Your task to perform on an android device: Go to calendar. Show me events next week Image 0: 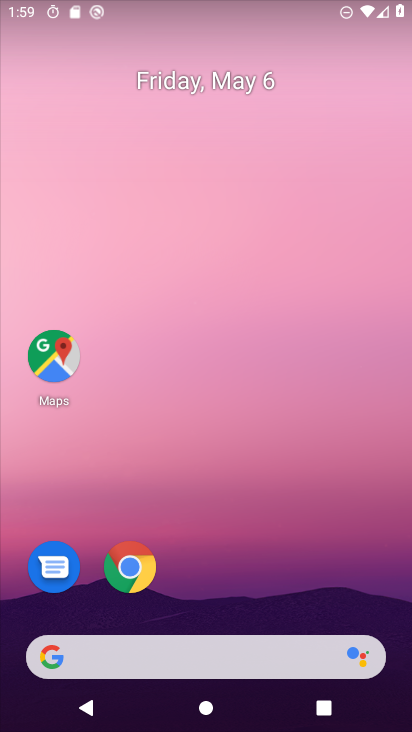
Step 0: drag from (279, 686) to (230, 298)
Your task to perform on an android device: Go to calendar. Show me events next week Image 1: 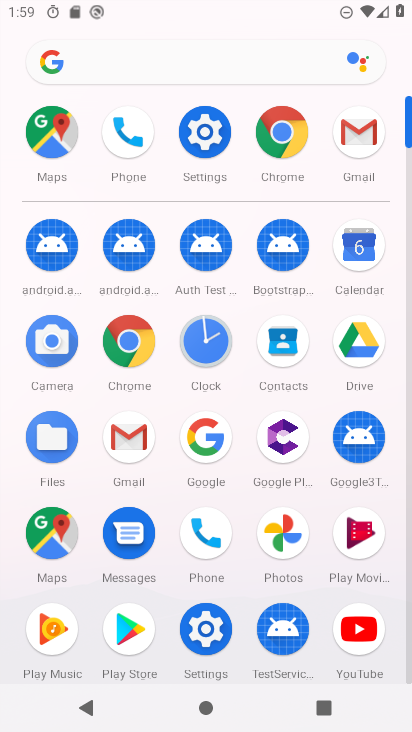
Step 1: click (375, 258)
Your task to perform on an android device: Go to calendar. Show me events next week Image 2: 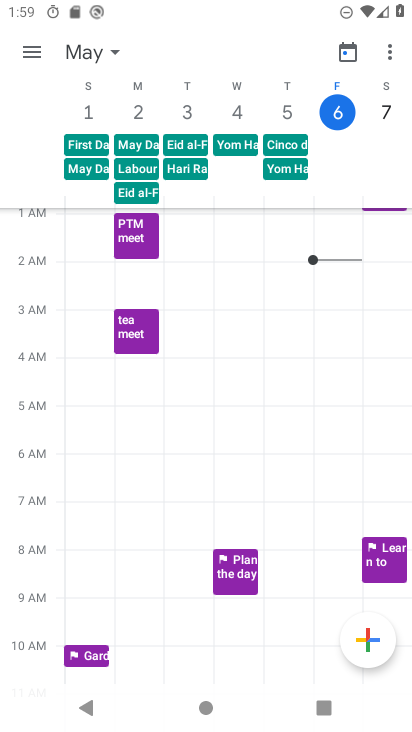
Step 2: click (44, 55)
Your task to perform on an android device: Go to calendar. Show me events next week Image 3: 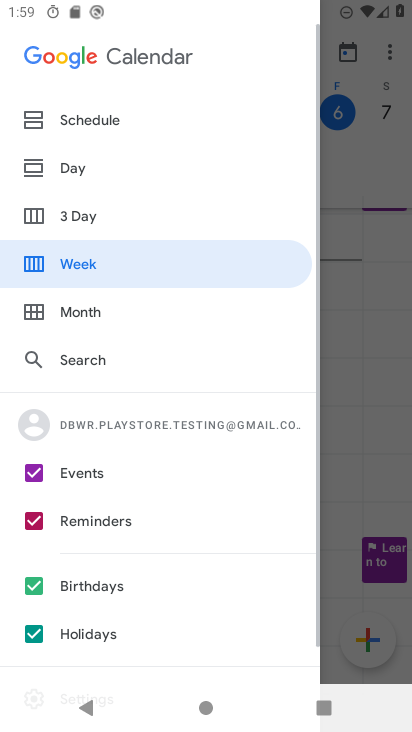
Step 3: click (138, 311)
Your task to perform on an android device: Go to calendar. Show me events next week Image 4: 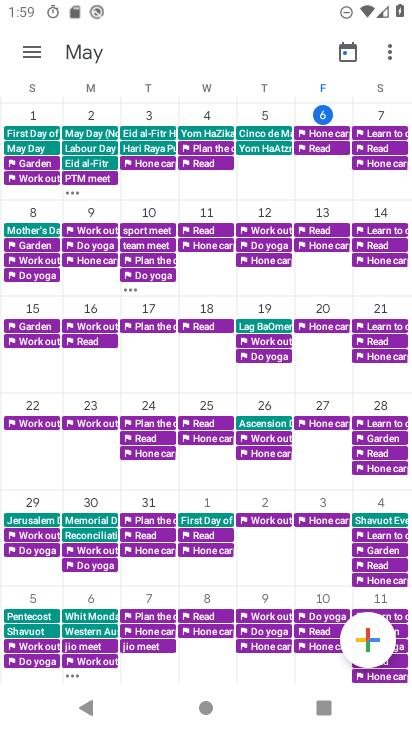
Step 4: click (82, 226)
Your task to perform on an android device: Go to calendar. Show me events next week Image 5: 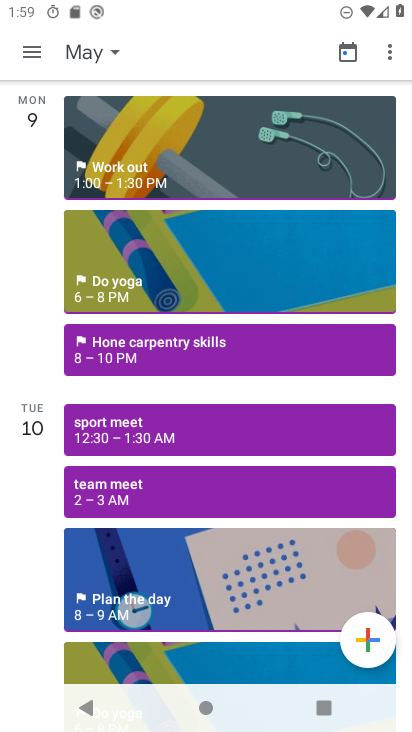
Step 5: task complete